Your task to perform on an android device: Open Maps and search for coffee Image 0: 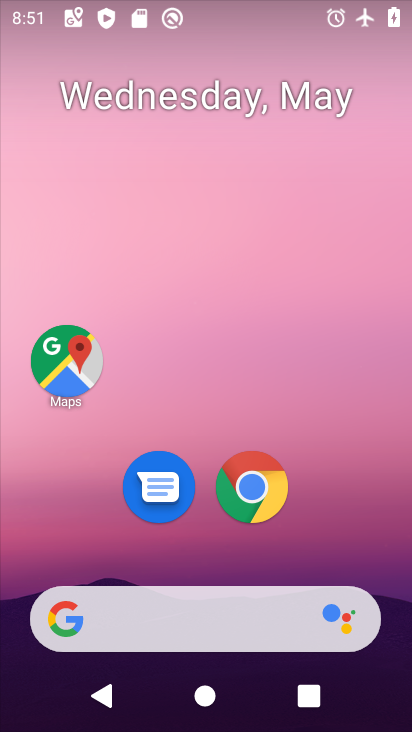
Step 0: drag from (218, 549) to (236, 35)
Your task to perform on an android device: Open Maps and search for coffee Image 1: 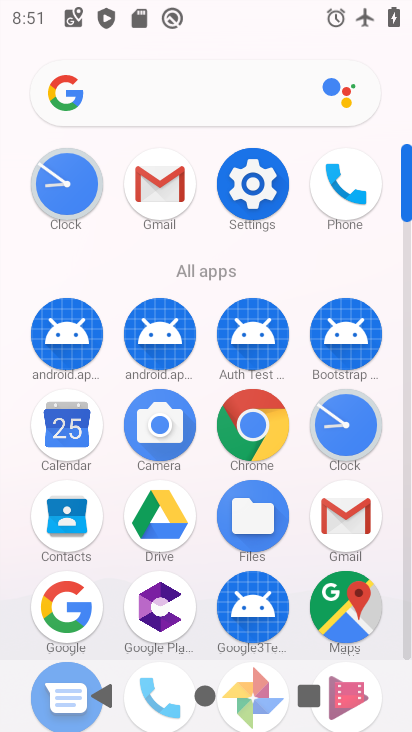
Step 1: click (348, 600)
Your task to perform on an android device: Open Maps and search for coffee Image 2: 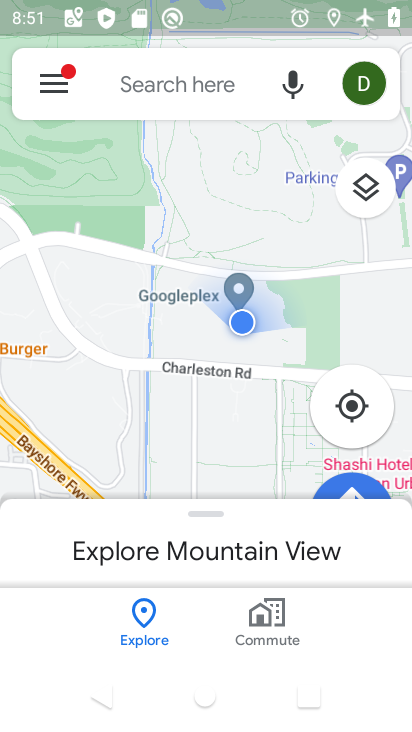
Step 2: click (171, 76)
Your task to perform on an android device: Open Maps and search for coffee Image 3: 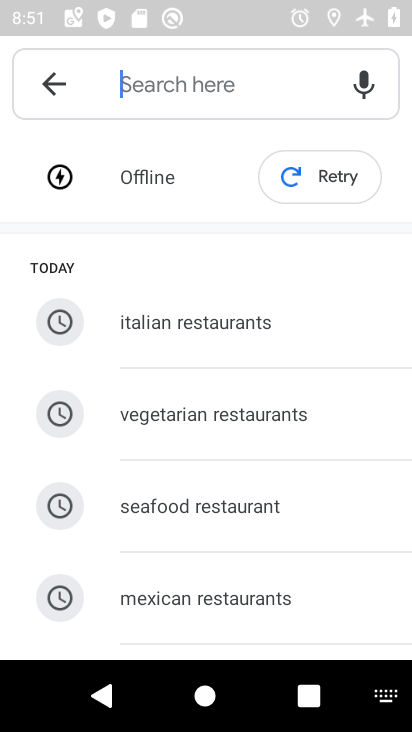
Step 3: drag from (200, 569) to (226, 163)
Your task to perform on an android device: Open Maps and search for coffee Image 4: 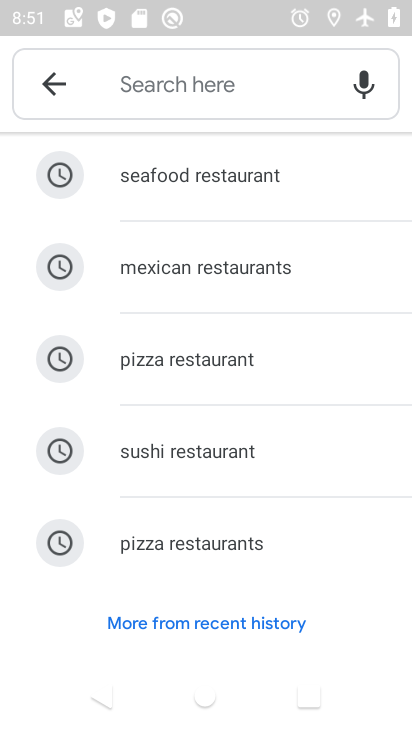
Step 4: drag from (210, 192) to (215, 643)
Your task to perform on an android device: Open Maps and search for coffee Image 5: 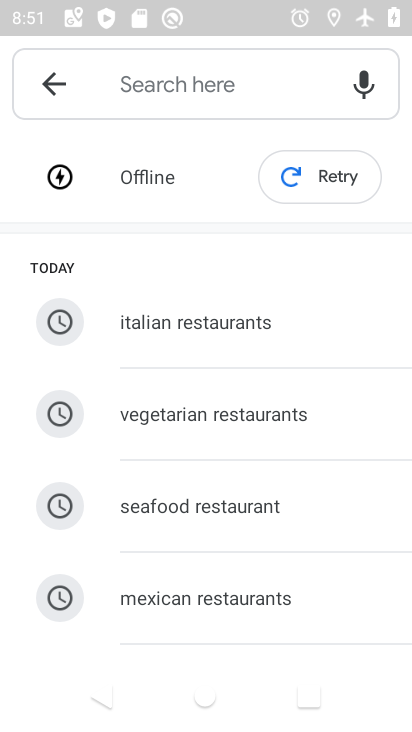
Step 5: click (181, 77)
Your task to perform on an android device: Open Maps and search for coffee Image 6: 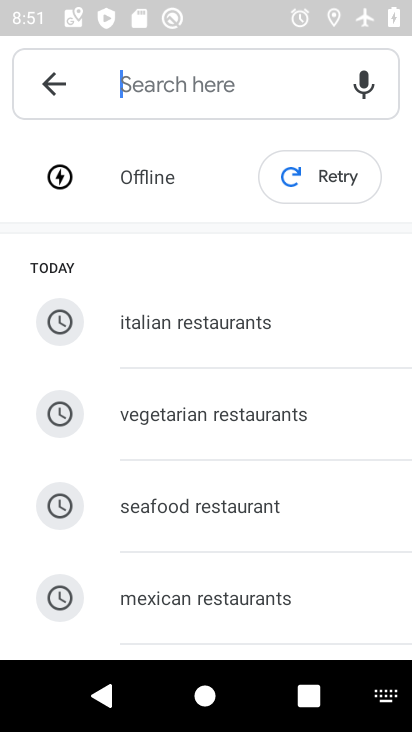
Step 6: type "coffee"
Your task to perform on an android device: Open Maps and search for coffee Image 7: 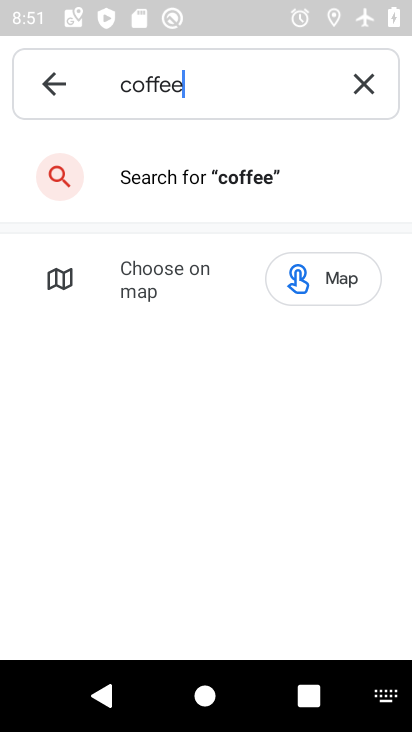
Step 7: task complete